Your task to perform on an android device: turn on improve location accuracy Image 0: 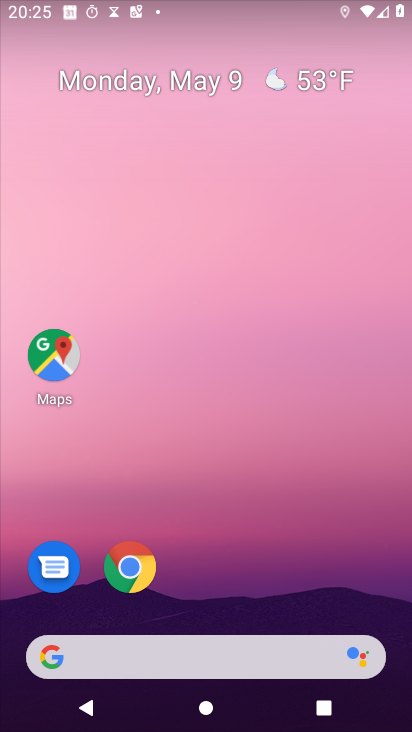
Step 0: drag from (274, 609) to (234, 49)
Your task to perform on an android device: turn on improve location accuracy Image 1: 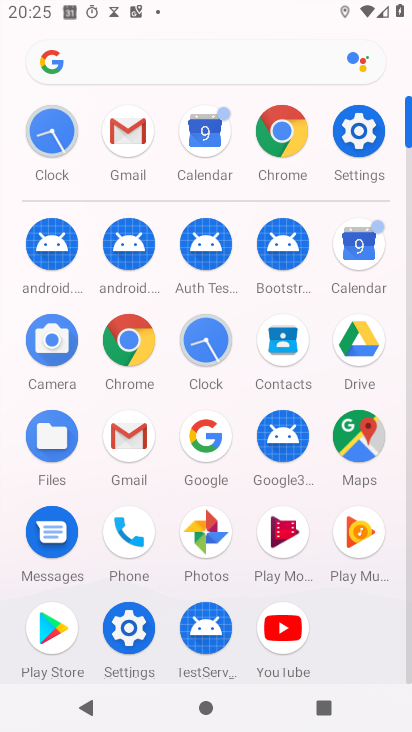
Step 1: click (351, 130)
Your task to perform on an android device: turn on improve location accuracy Image 2: 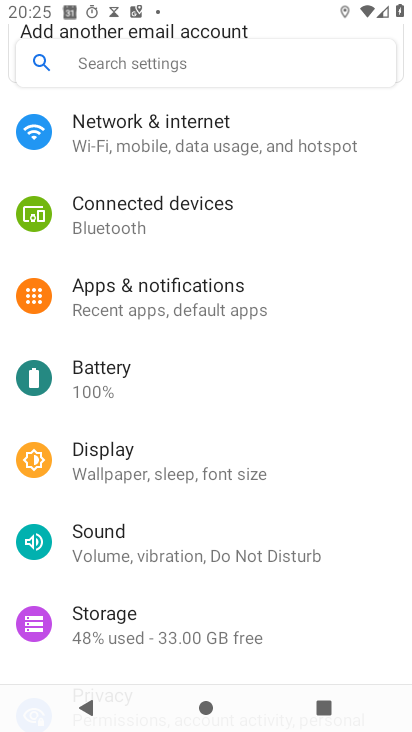
Step 2: drag from (255, 391) to (262, 282)
Your task to perform on an android device: turn on improve location accuracy Image 3: 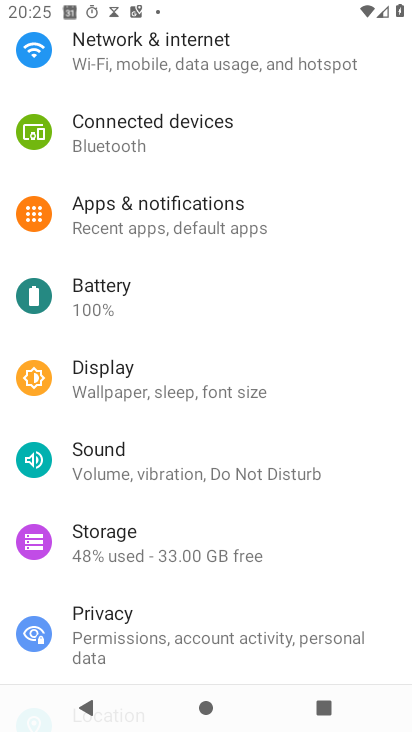
Step 3: drag from (279, 521) to (252, 388)
Your task to perform on an android device: turn on improve location accuracy Image 4: 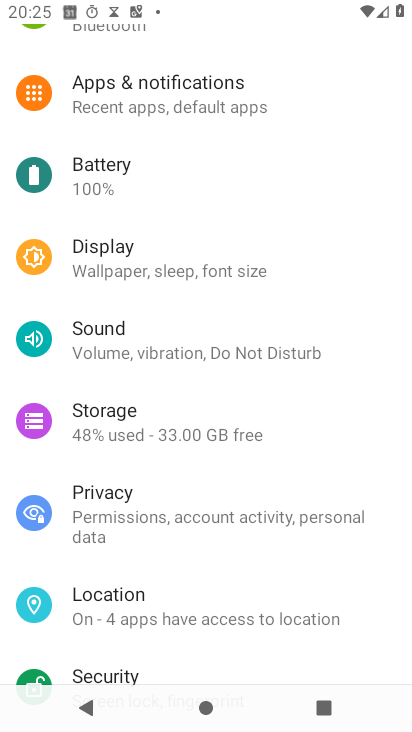
Step 4: click (172, 624)
Your task to perform on an android device: turn on improve location accuracy Image 5: 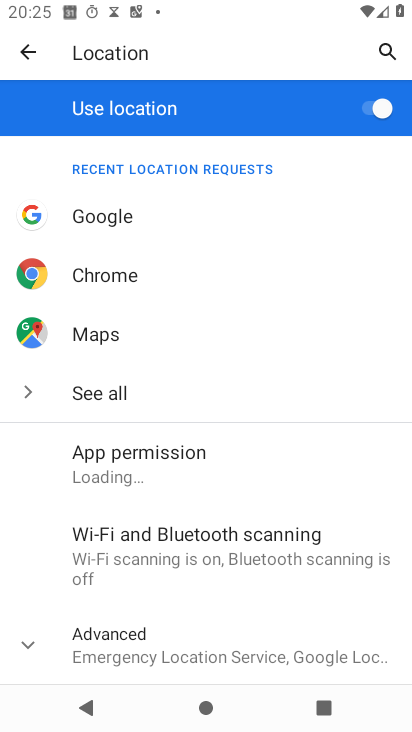
Step 5: click (147, 633)
Your task to perform on an android device: turn on improve location accuracy Image 6: 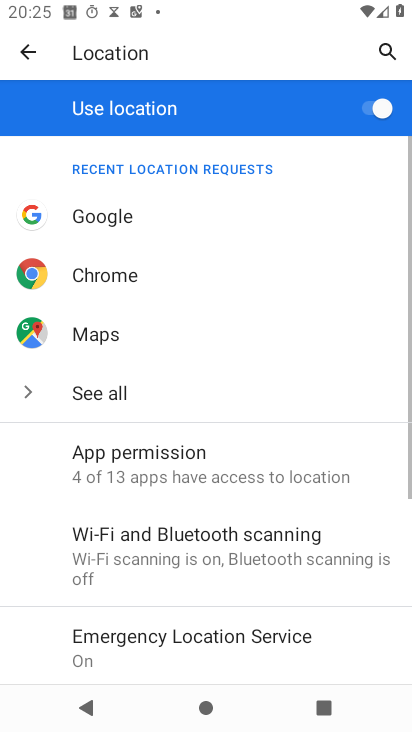
Step 6: drag from (147, 633) to (133, 527)
Your task to perform on an android device: turn on improve location accuracy Image 7: 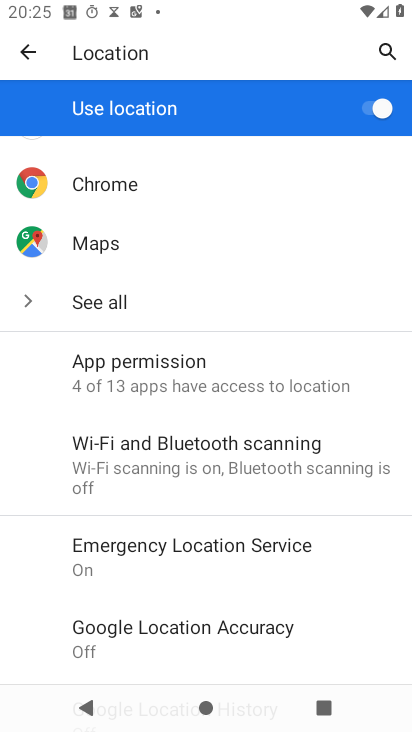
Step 7: click (145, 639)
Your task to perform on an android device: turn on improve location accuracy Image 8: 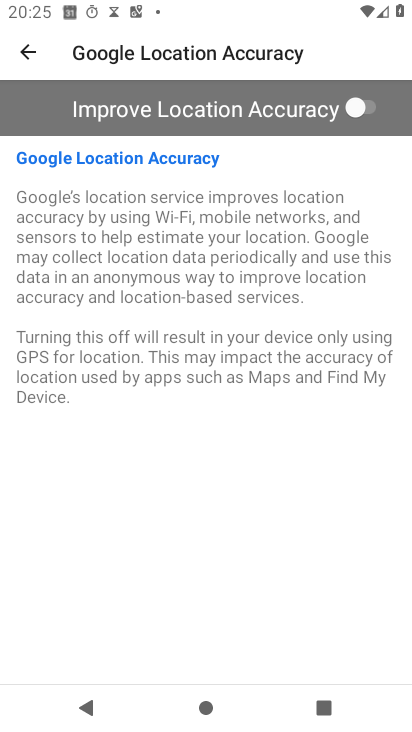
Step 8: click (377, 104)
Your task to perform on an android device: turn on improve location accuracy Image 9: 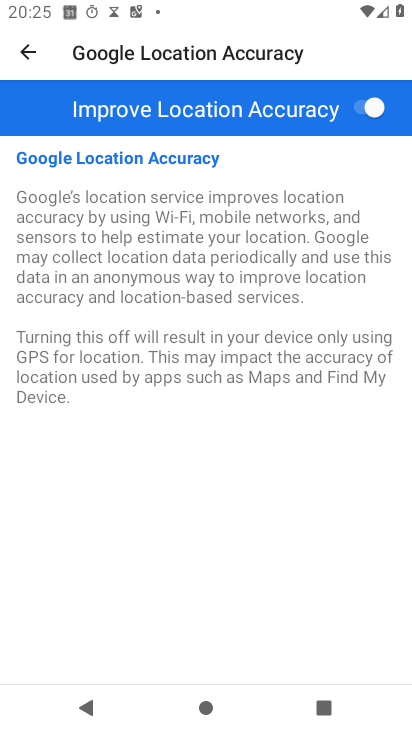
Step 9: task complete